Your task to perform on an android device: Turn off the flashlight Image 0: 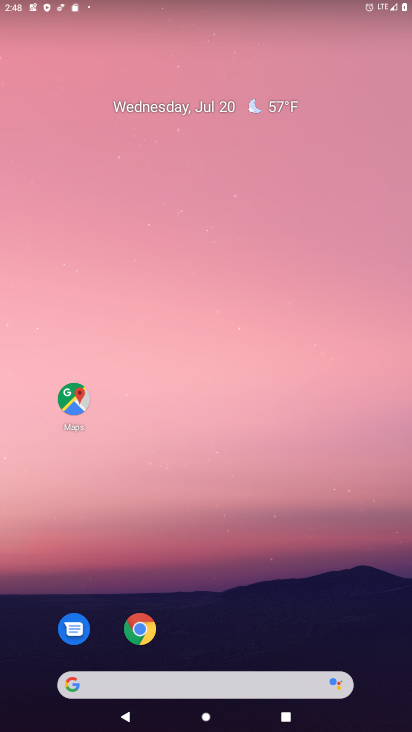
Step 0: drag from (212, 12) to (248, 451)
Your task to perform on an android device: Turn off the flashlight Image 1: 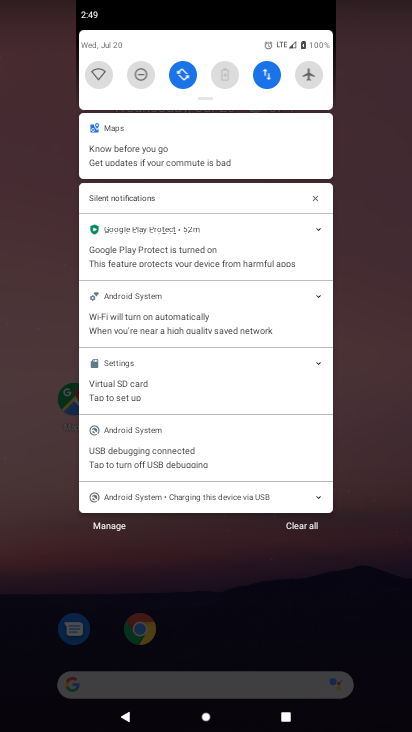
Step 1: drag from (199, 111) to (216, 438)
Your task to perform on an android device: Turn off the flashlight Image 2: 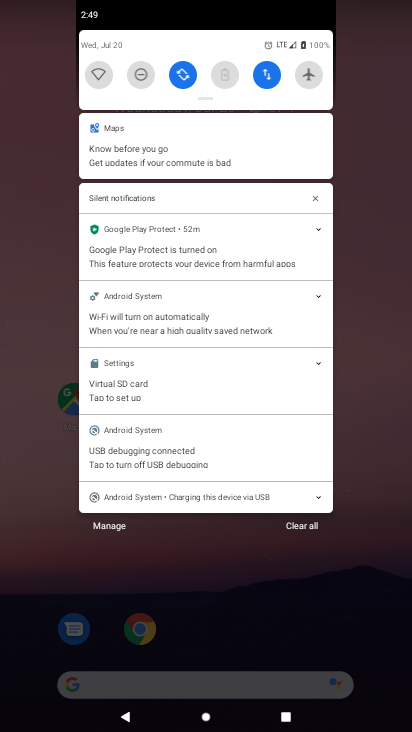
Step 2: drag from (200, 99) to (223, 504)
Your task to perform on an android device: Turn off the flashlight Image 3: 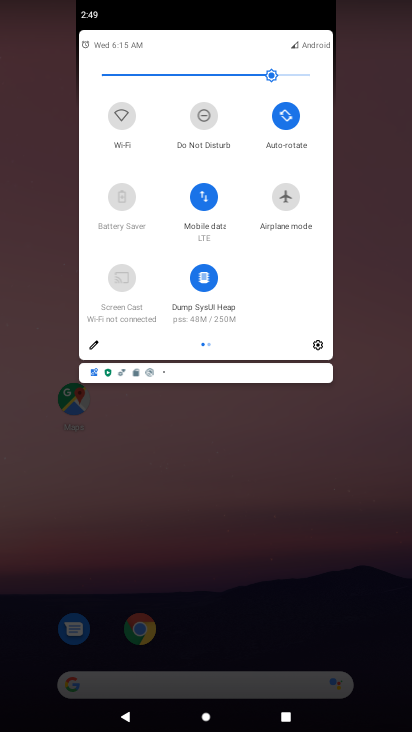
Step 3: click (89, 342)
Your task to perform on an android device: Turn off the flashlight Image 4: 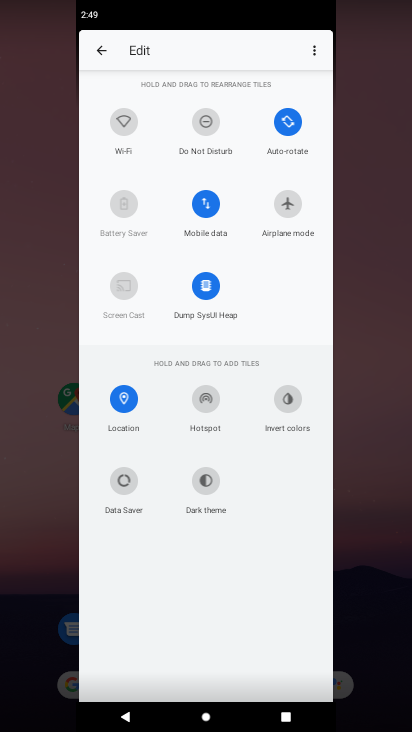
Step 4: task complete